Your task to perform on an android device: Open Reddit.com Image 0: 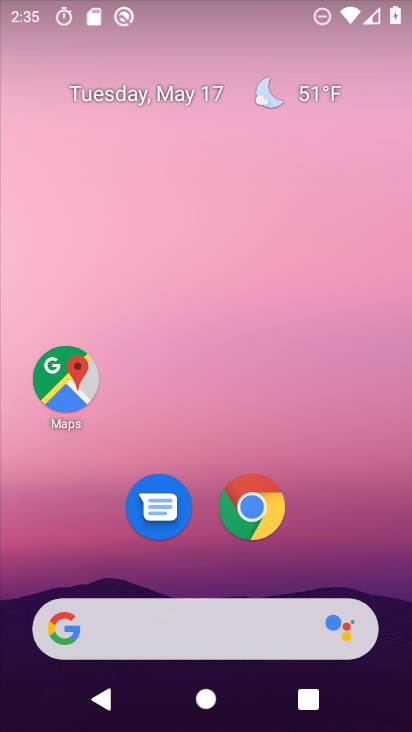
Step 0: drag from (210, 547) to (223, 106)
Your task to perform on an android device: Open Reddit.com Image 1: 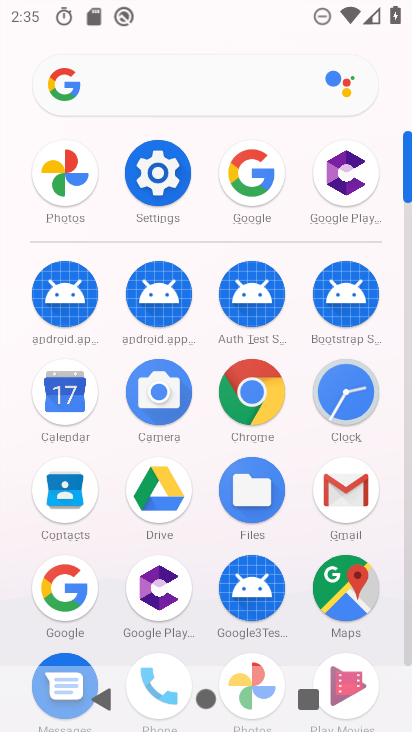
Step 1: click (253, 176)
Your task to perform on an android device: Open Reddit.com Image 2: 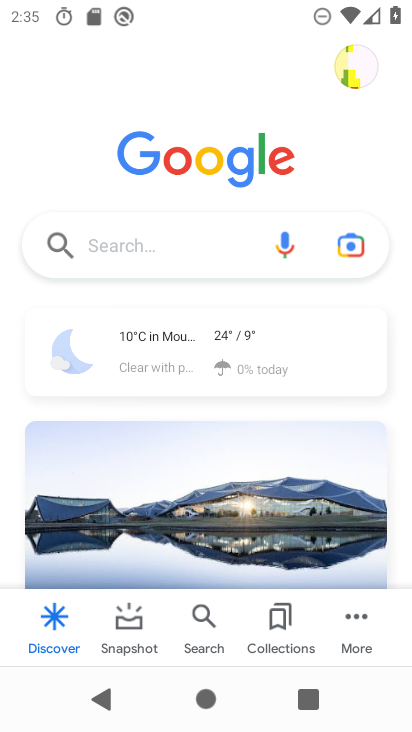
Step 2: click (166, 248)
Your task to perform on an android device: Open Reddit.com Image 3: 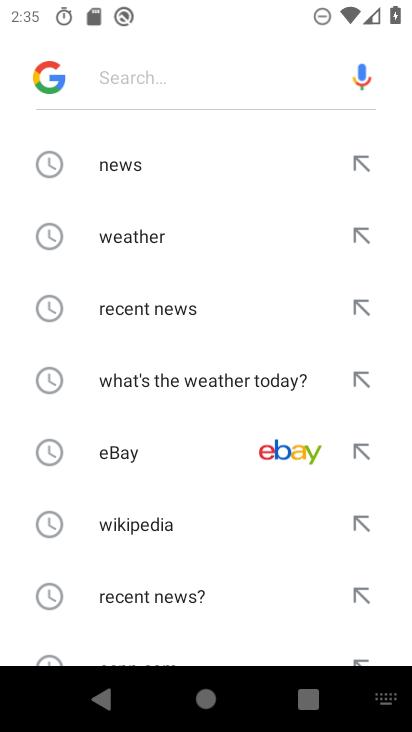
Step 3: drag from (171, 529) to (202, 245)
Your task to perform on an android device: Open Reddit.com Image 4: 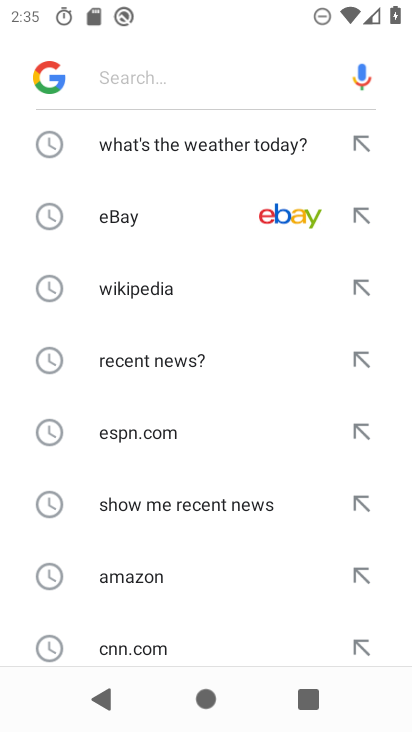
Step 4: type "reddit.com"
Your task to perform on an android device: Open Reddit.com Image 5: 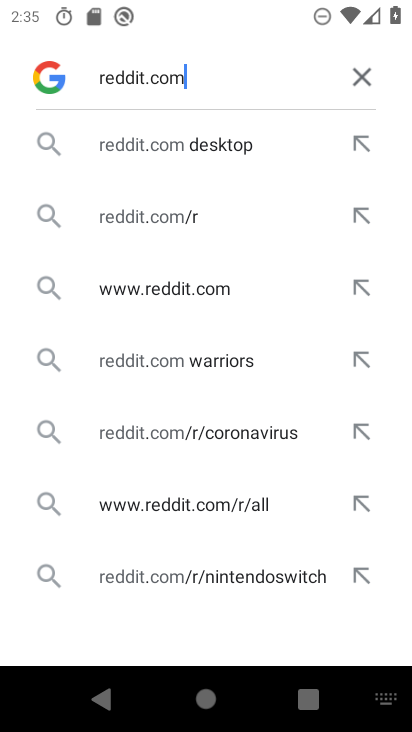
Step 5: click (198, 290)
Your task to perform on an android device: Open Reddit.com Image 6: 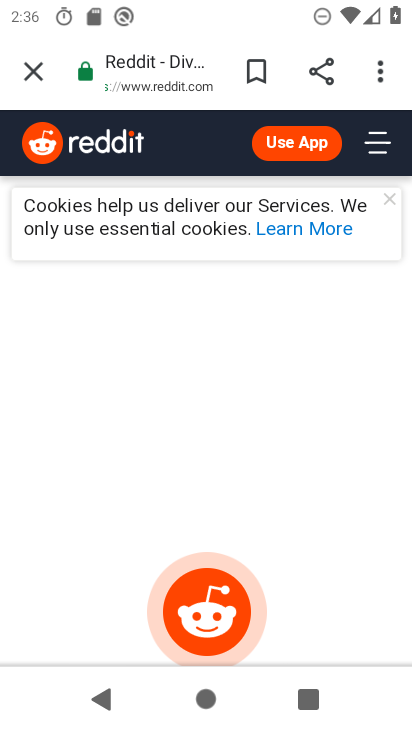
Step 6: task complete